Your task to perform on an android device: Open Google Maps Image 0: 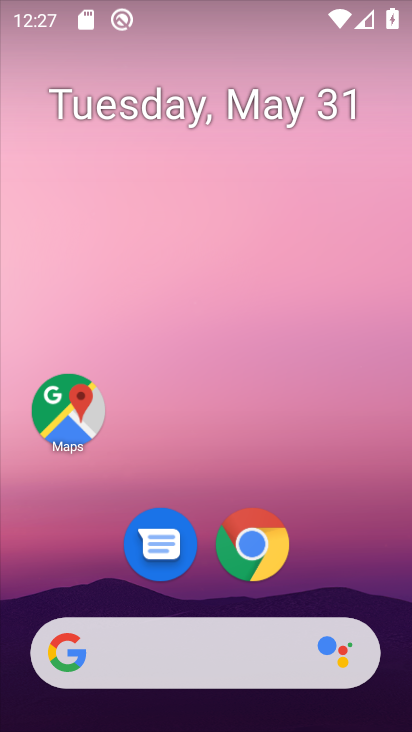
Step 0: click (63, 432)
Your task to perform on an android device: Open Google Maps Image 1: 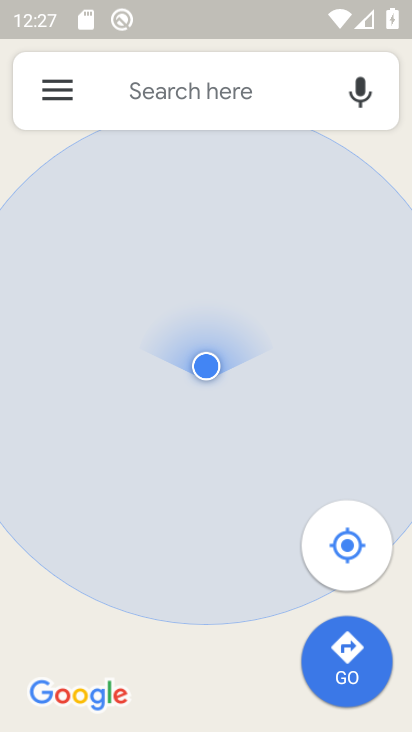
Step 1: task complete